Your task to perform on an android device: open app "Speedtest by Ookla" (install if not already installed) and enter user name: "hyena@outlook.com" and password: "terminators" Image 0: 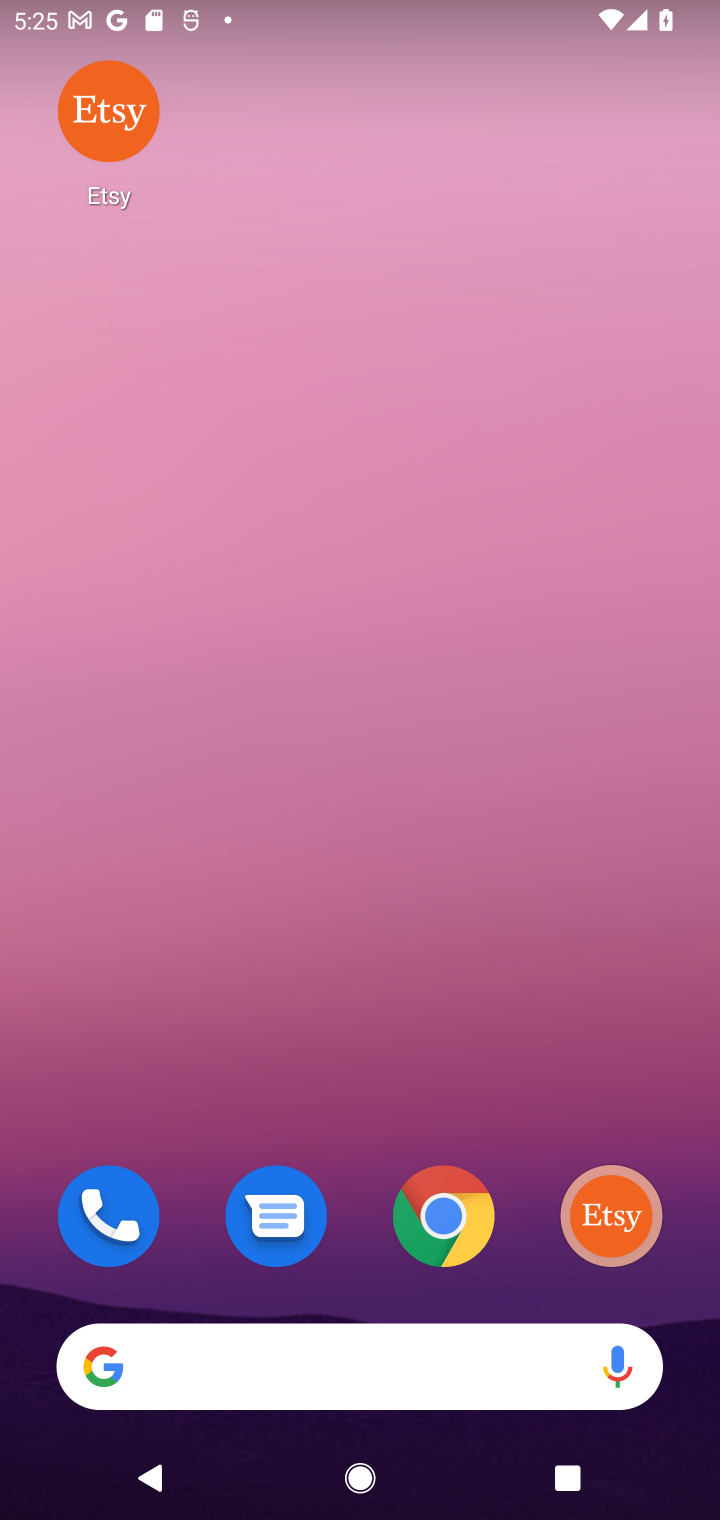
Step 0: drag from (534, 1270) to (519, 322)
Your task to perform on an android device: open app "Speedtest by Ookla" (install if not already installed) and enter user name: "hyena@outlook.com" and password: "terminators" Image 1: 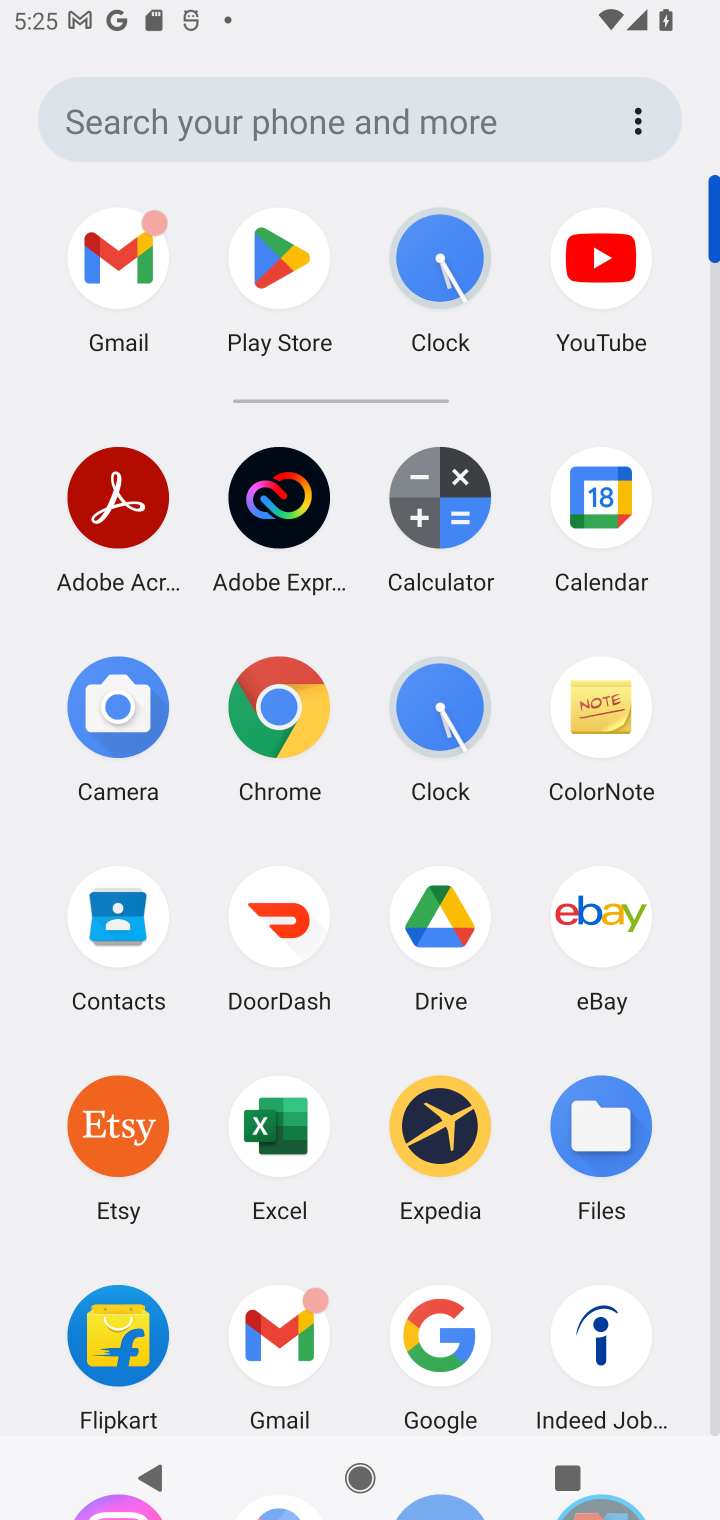
Step 1: drag from (687, 1374) to (660, 550)
Your task to perform on an android device: open app "Speedtest by Ookla" (install if not already installed) and enter user name: "hyena@outlook.com" and password: "terminators" Image 2: 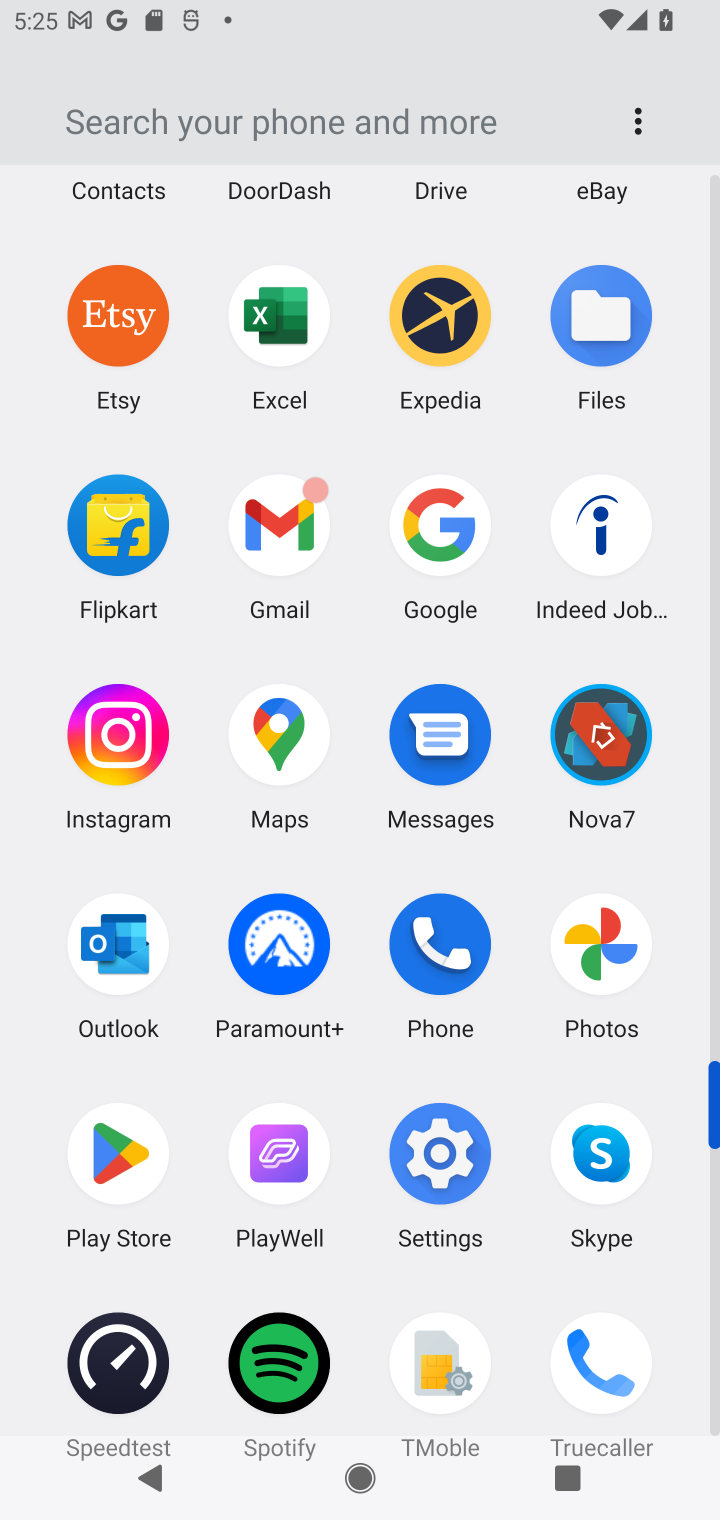
Step 2: click (120, 1150)
Your task to perform on an android device: open app "Speedtest by Ookla" (install if not already installed) and enter user name: "hyena@outlook.com" and password: "terminators" Image 3: 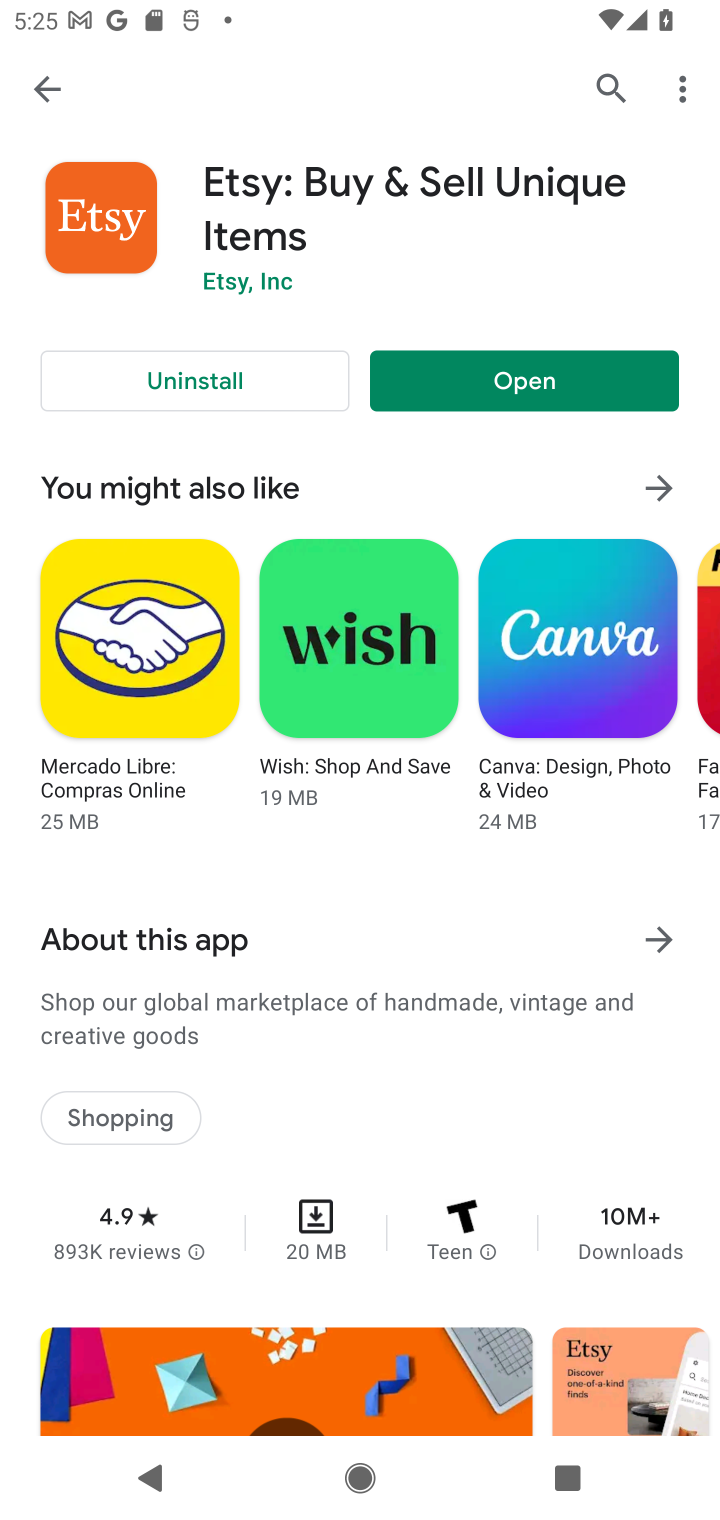
Step 3: click (603, 76)
Your task to perform on an android device: open app "Speedtest by Ookla" (install if not already installed) and enter user name: "hyena@outlook.com" and password: "terminators" Image 4: 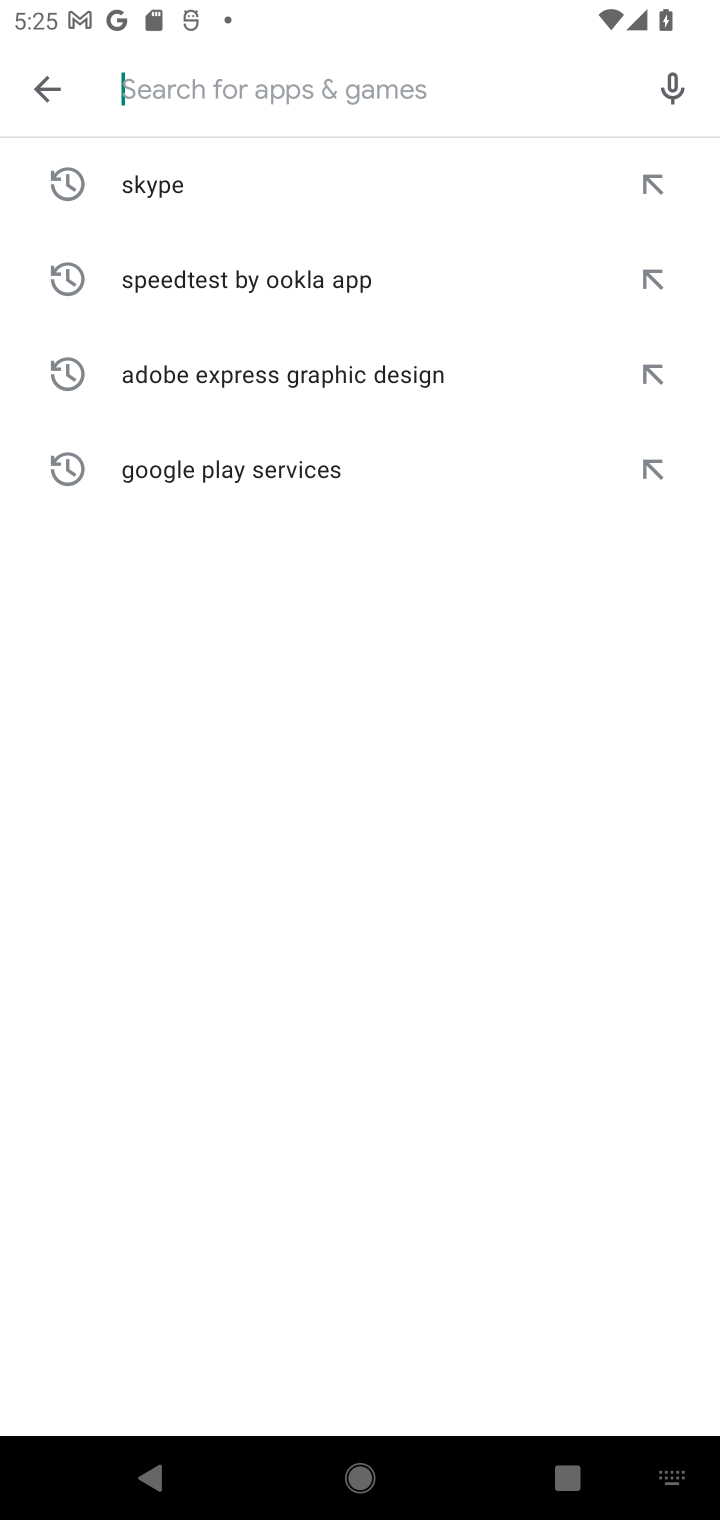
Step 4: click (184, 273)
Your task to perform on an android device: open app "Speedtest by Ookla" (install if not already installed) and enter user name: "hyena@outlook.com" and password: "terminators" Image 5: 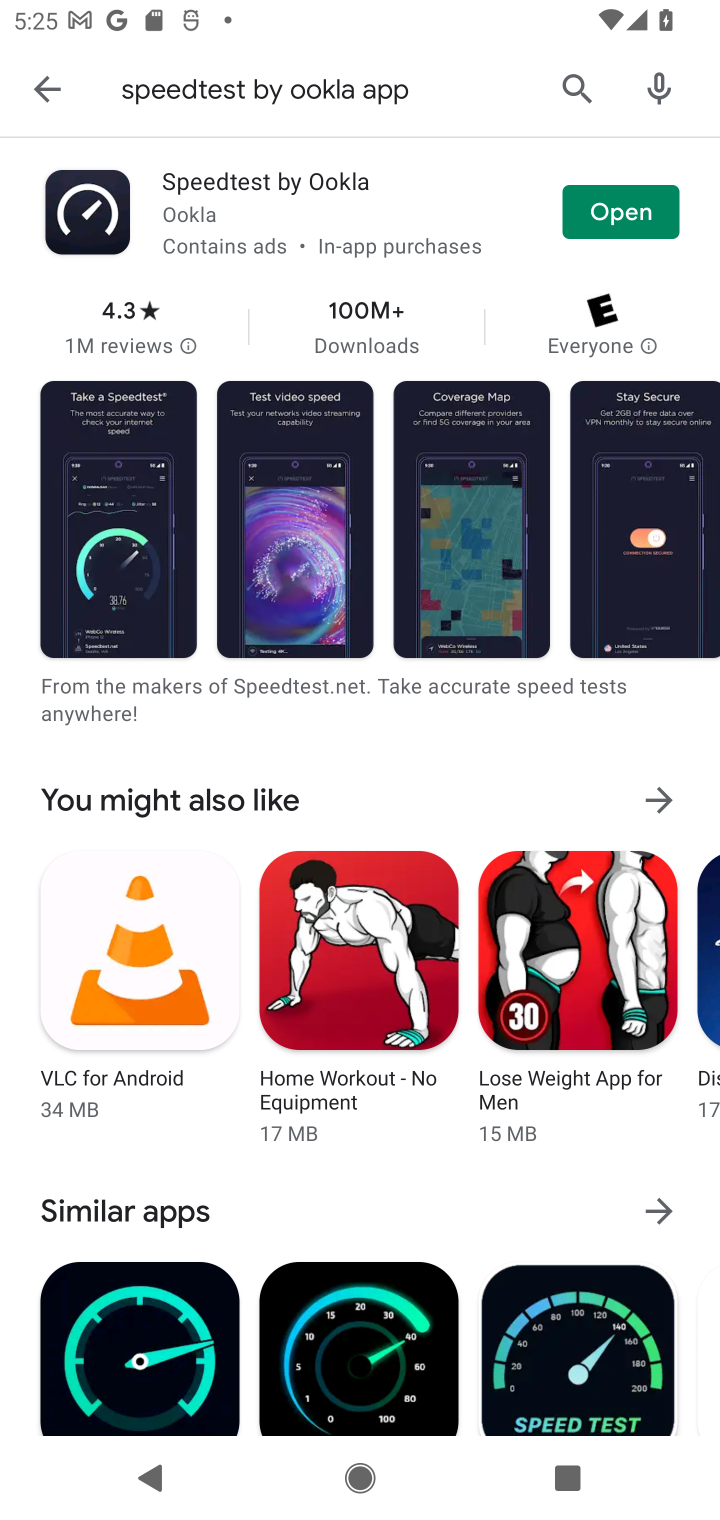
Step 5: click (622, 204)
Your task to perform on an android device: open app "Speedtest by Ookla" (install if not already installed) and enter user name: "hyena@outlook.com" and password: "terminators" Image 6: 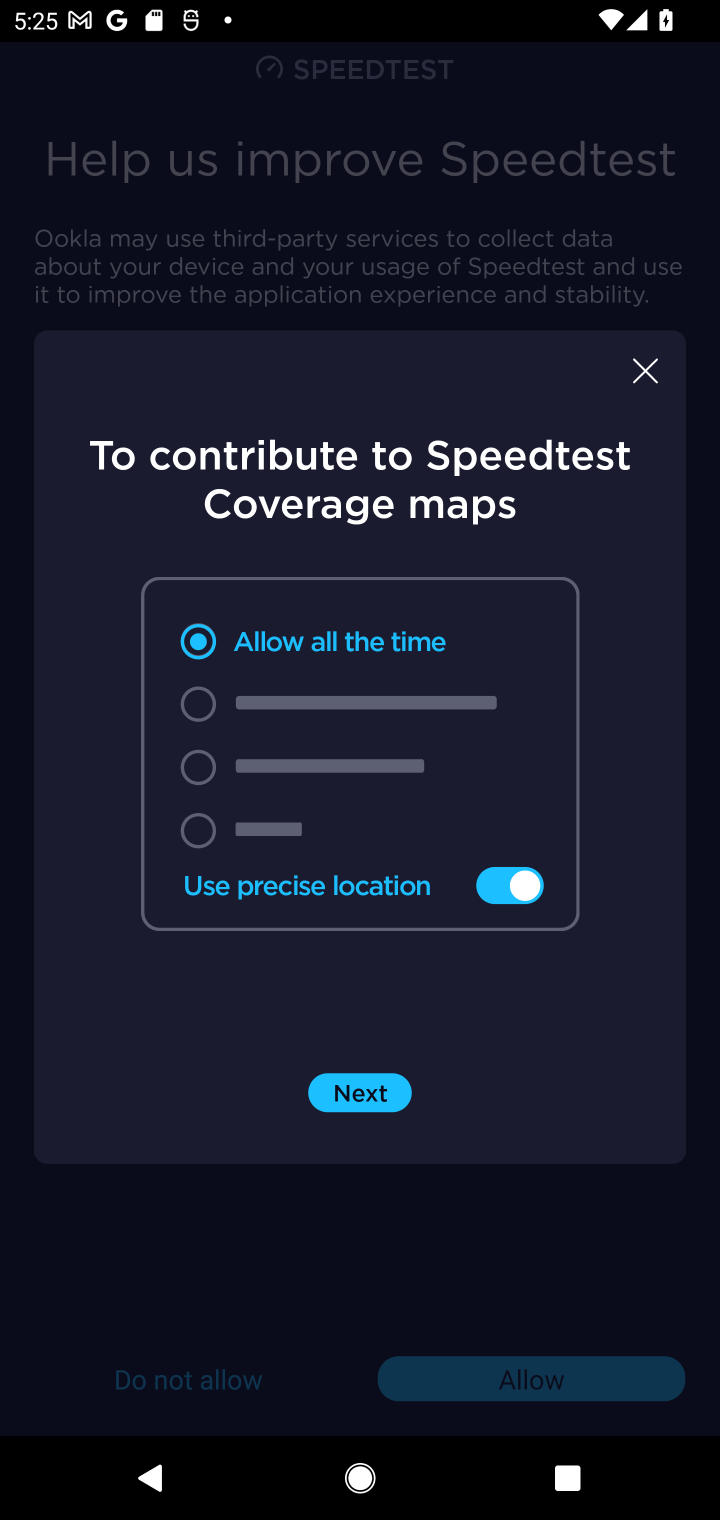
Step 6: click (639, 371)
Your task to perform on an android device: open app "Speedtest by Ookla" (install if not already installed) and enter user name: "hyena@outlook.com" and password: "terminators" Image 7: 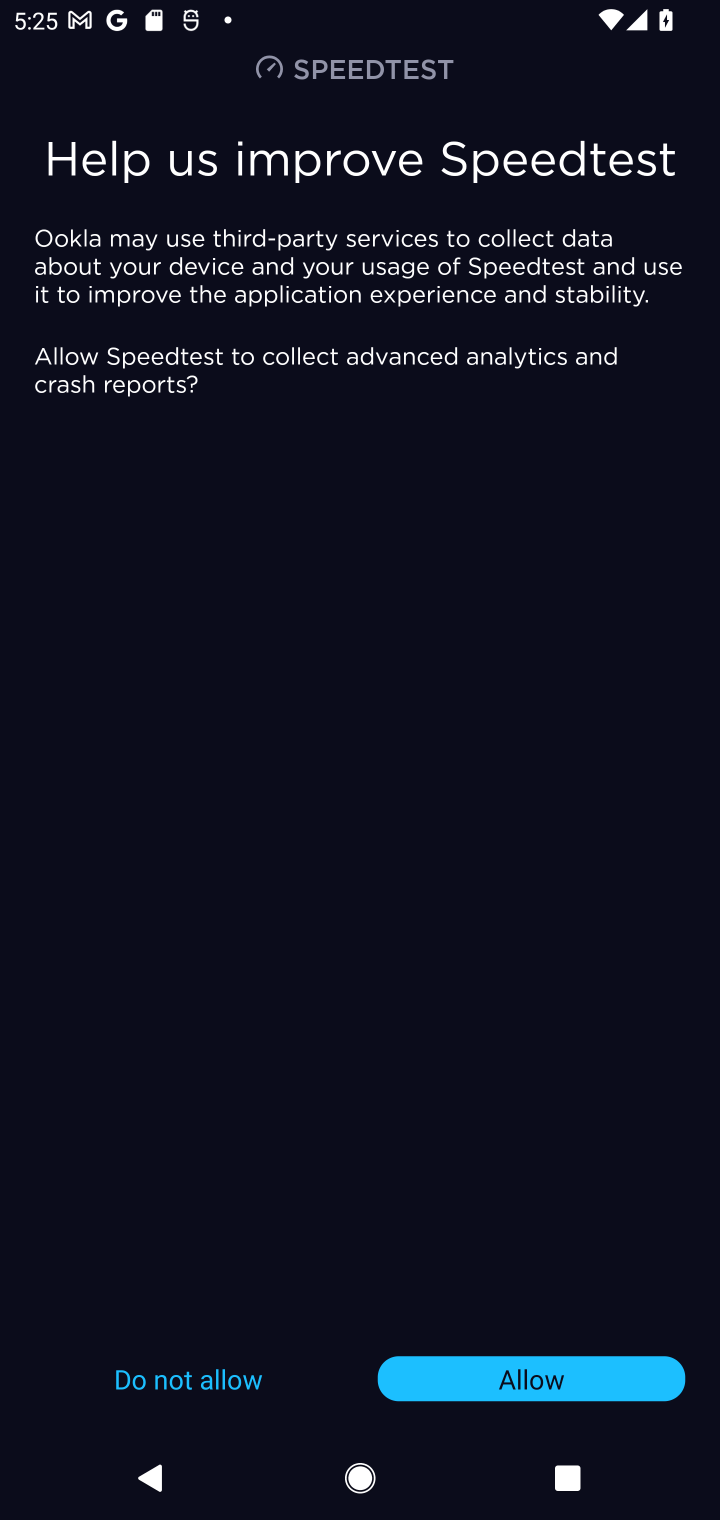
Step 7: click (224, 1384)
Your task to perform on an android device: open app "Speedtest by Ookla" (install if not already installed) and enter user name: "hyena@outlook.com" and password: "terminators" Image 8: 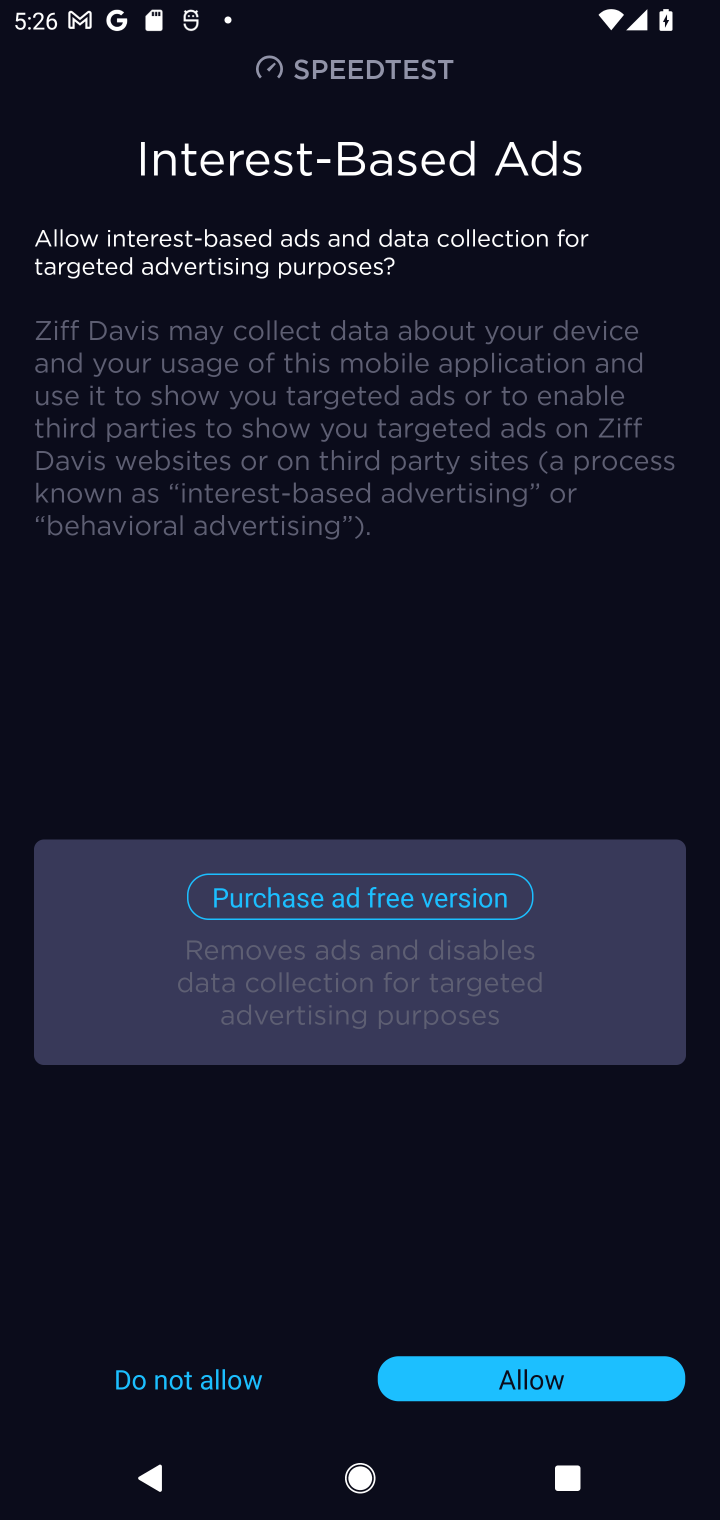
Step 8: click (501, 1384)
Your task to perform on an android device: open app "Speedtest by Ookla" (install if not already installed) and enter user name: "hyena@outlook.com" and password: "terminators" Image 9: 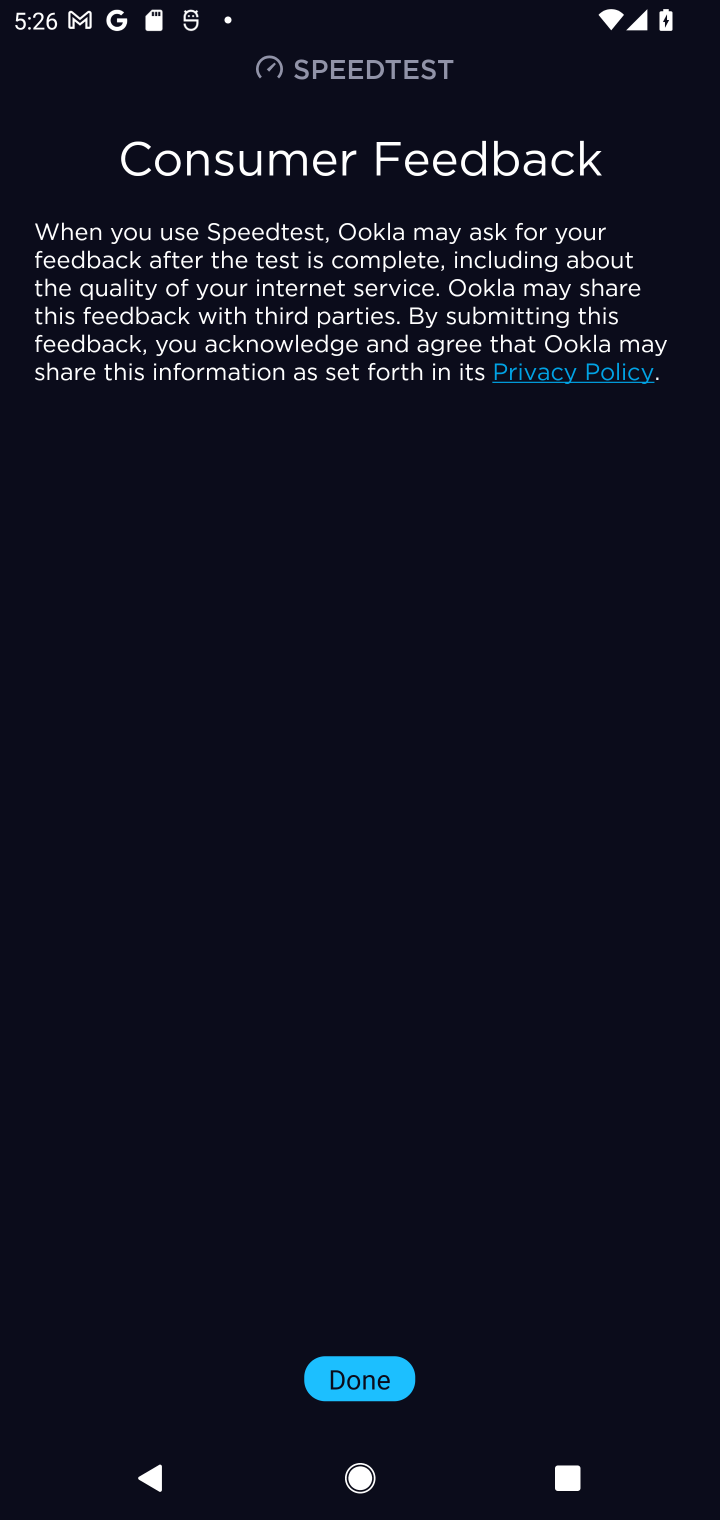
Step 9: click (371, 1380)
Your task to perform on an android device: open app "Speedtest by Ookla" (install if not already installed) and enter user name: "hyena@outlook.com" and password: "terminators" Image 10: 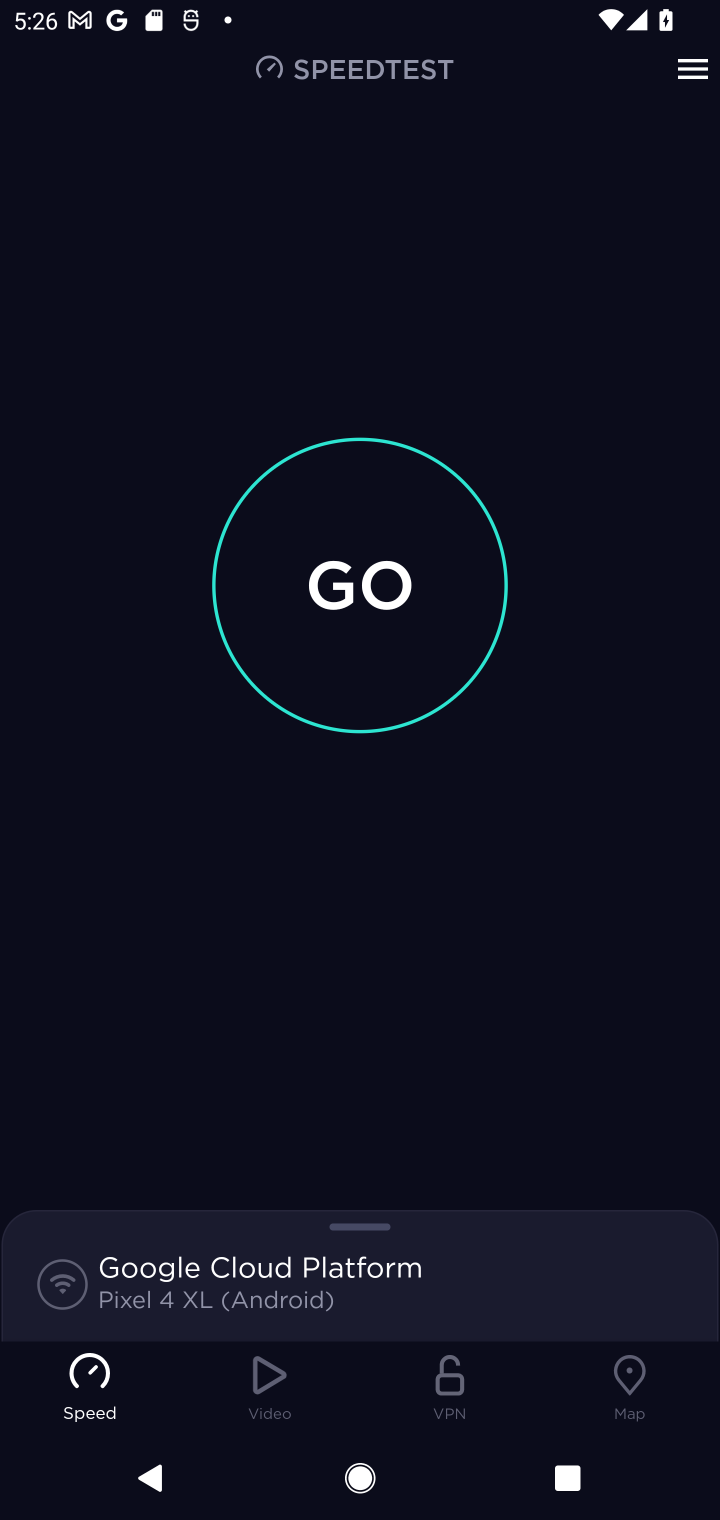
Step 10: click (690, 74)
Your task to perform on an android device: open app "Speedtest by Ookla" (install if not already installed) and enter user name: "hyena@outlook.com" and password: "terminators" Image 11: 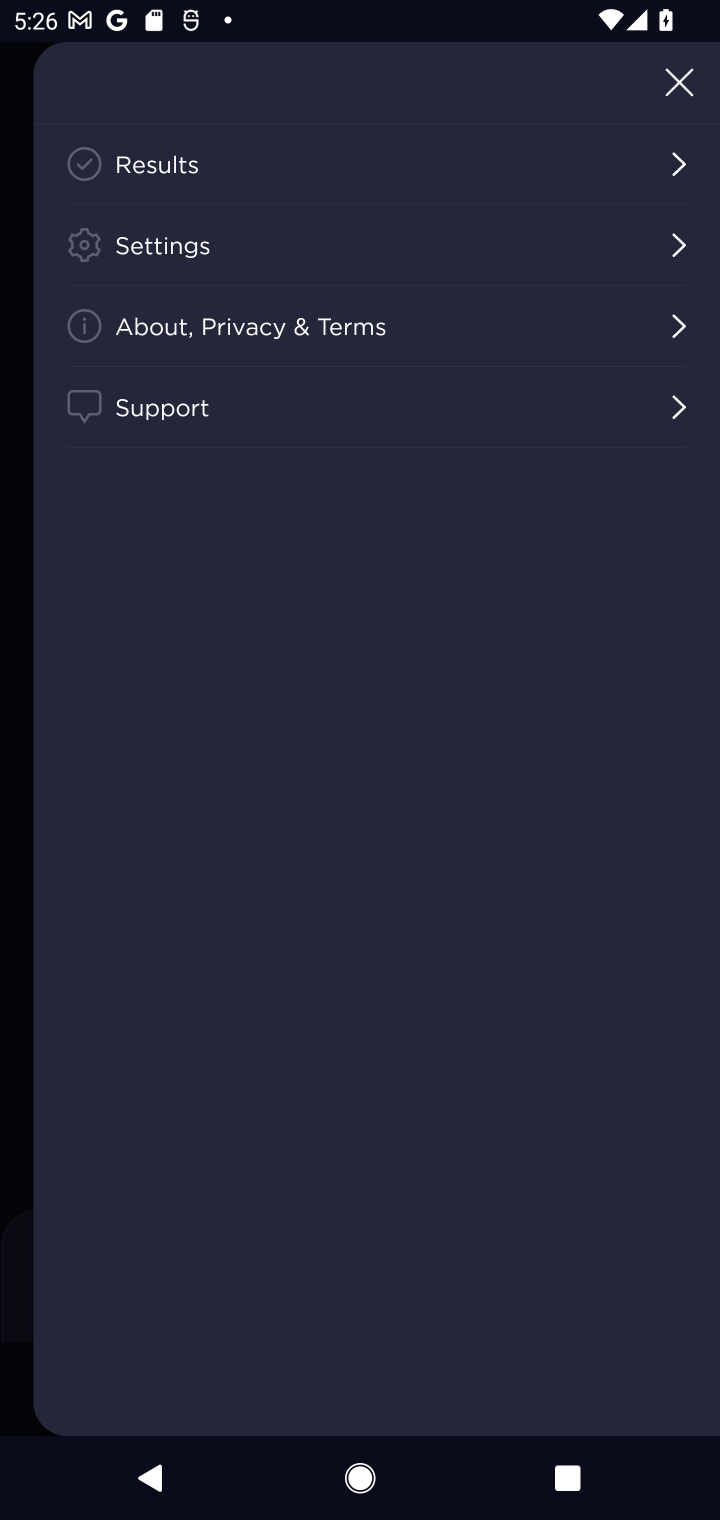
Step 11: click (151, 239)
Your task to perform on an android device: open app "Speedtest by Ookla" (install if not already installed) and enter user name: "hyena@outlook.com" and password: "terminators" Image 12: 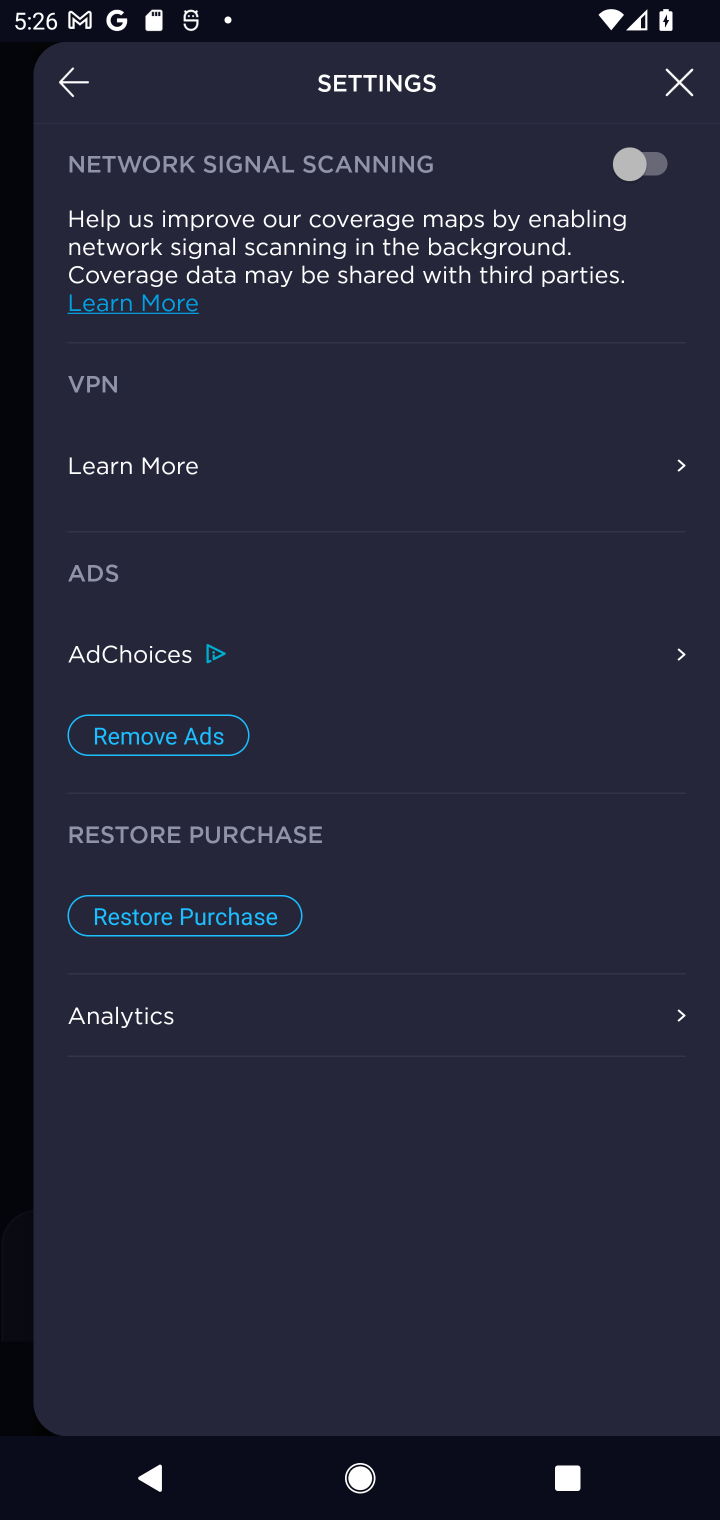
Step 12: task complete